Your task to perform on an android device: Go to Google maps Image 0: 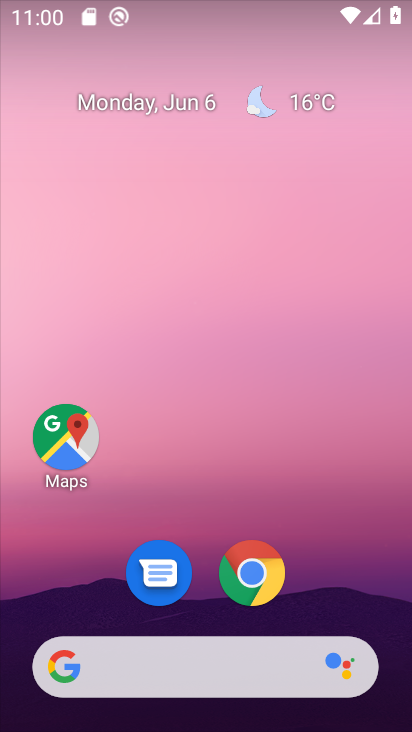
Step 0: click (57, 457)
Your task to perform on an android device: Go to Google maps Image 1: 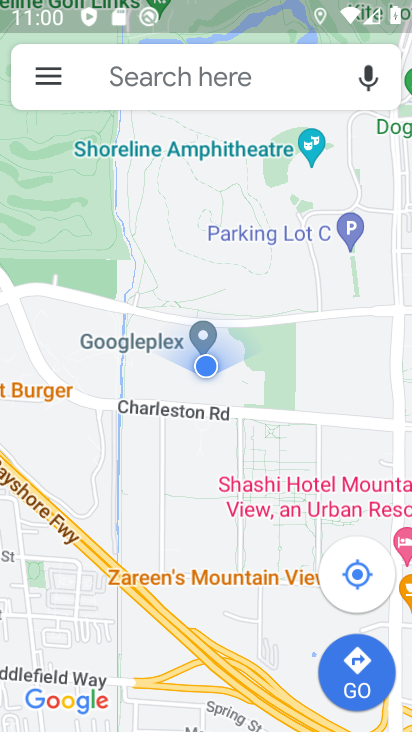
Step 1: task complete